Your task to perform on an android device: Open Yahoo.com Image 0: 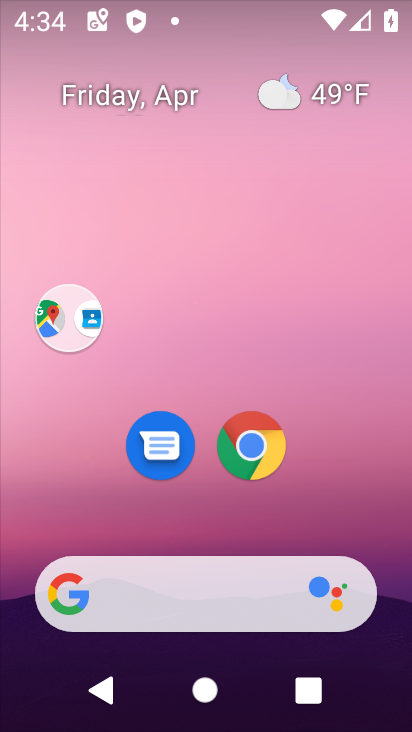
Step 0: drag from (330, 330) to (350, 115)
Your task to perform on an android device: Open Yahoo.com Image 1: 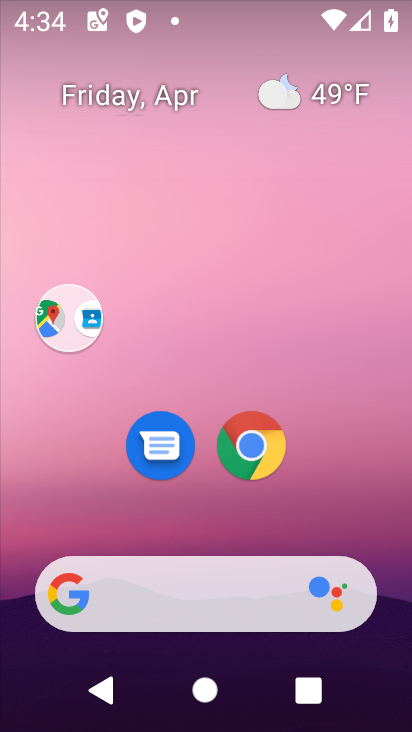
Step 1: drag from (339, 304) to (350, 85)
Your task to perform on an android device: Open Yahoo.com Image 2: 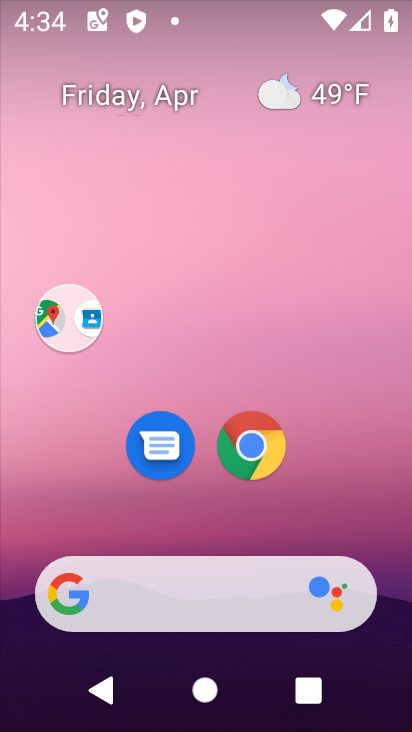
Step 2: drag from (343, 504) to (306, 100)
Your task to perform on an android device: Open Yahoo.com Image 3: 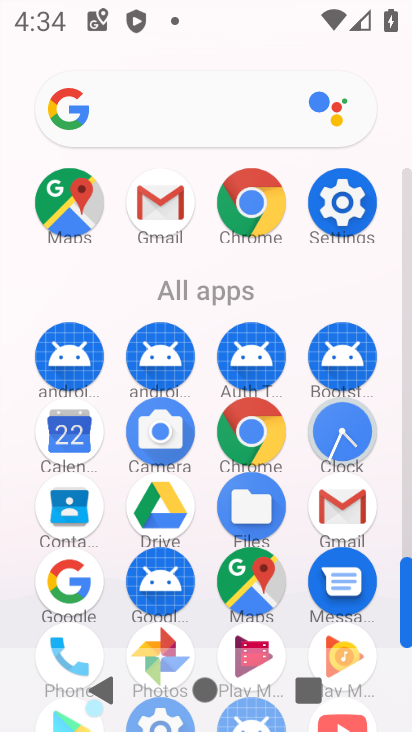
Step 3: click (254, 424)
Your task to perform on an android device: Open Yahoo.com Image 4: 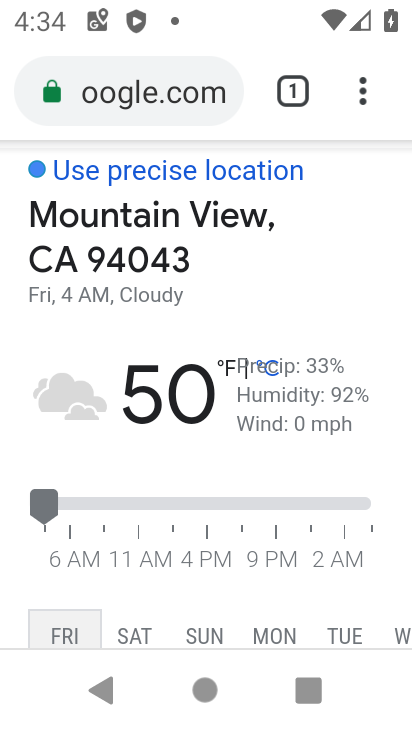
Step 4: click (196, 106)
Your task to perform on an android device: Open Yahoo.com Image 5: 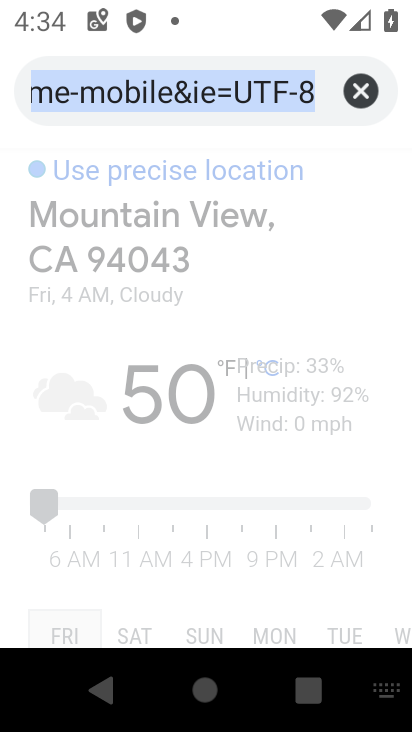
Step 5: type "yahoo.com"
Your task to perform on an android device: Open Yahoo.com Image 6: 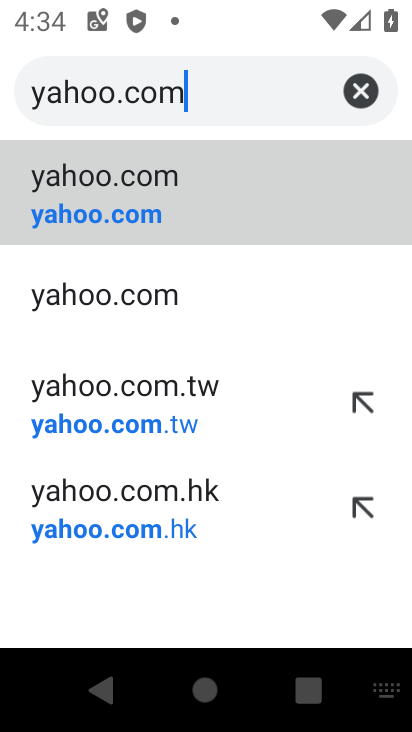
Step 6: click (147, 202)
Your task to perform on an android device: Open Yahoo.com Image 7: 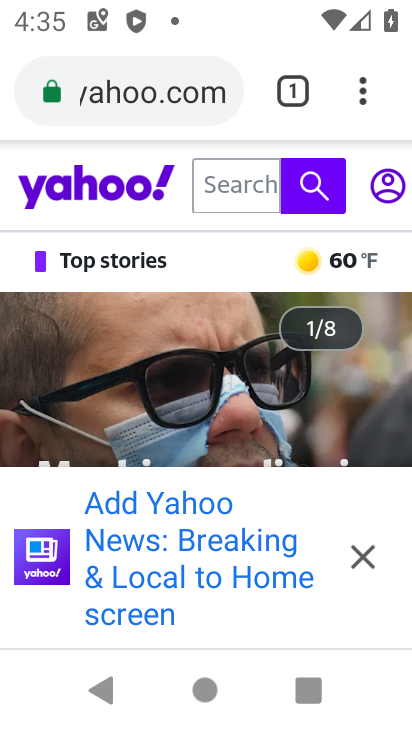
Step 7: task complete